Your task to perform on an android device: empty trash in the gmail app Image 0: 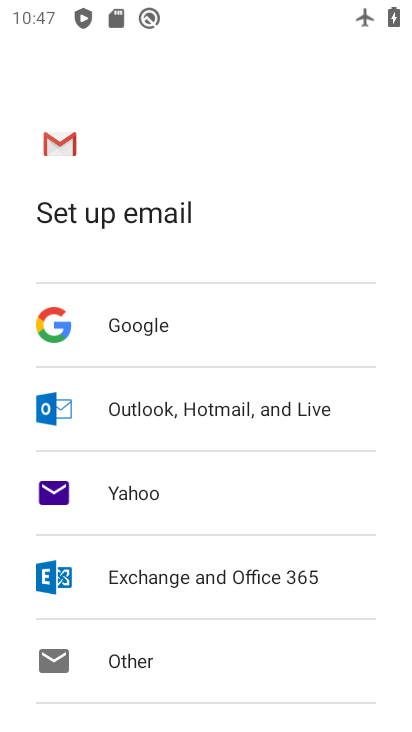
Step 0: press home button
Your task to perform on an android device: empty trash in the gmail app Image 1: 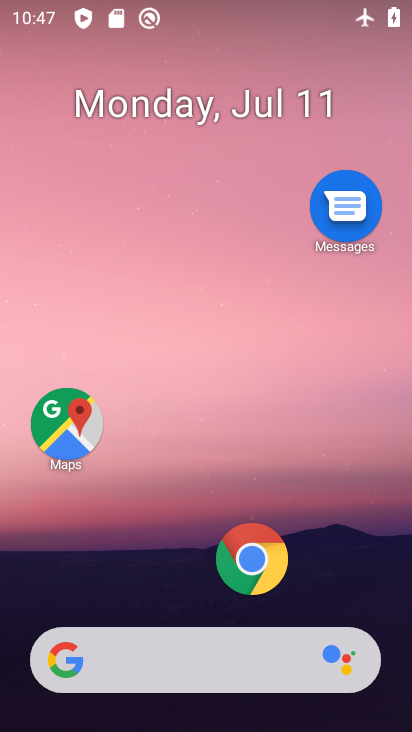
Step 1: drag from (372, 589) to (354, 247)
Your task to perform on an android device: empty trash in the gmail app Image 2: 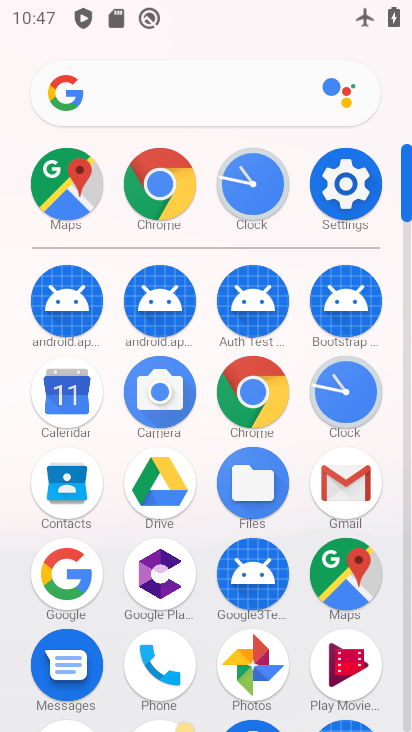
Step 2: click (359, 476)
Your task to perform on an android device: empty trash in the gmail app Image 3: 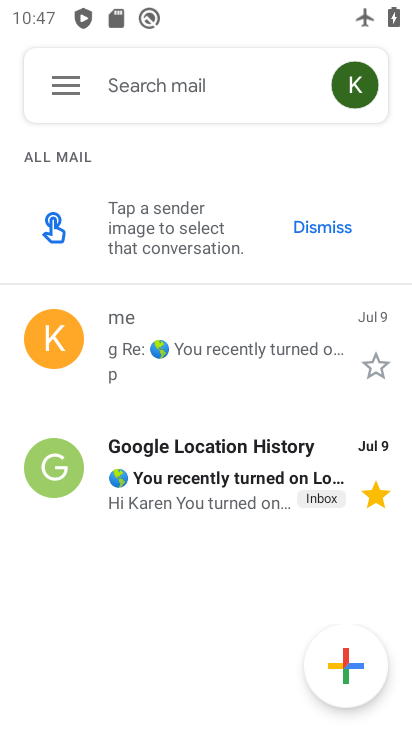
Step 3: click (68, 88)
Your task to perform on an android device: empty trash in the gmail app Image 4: 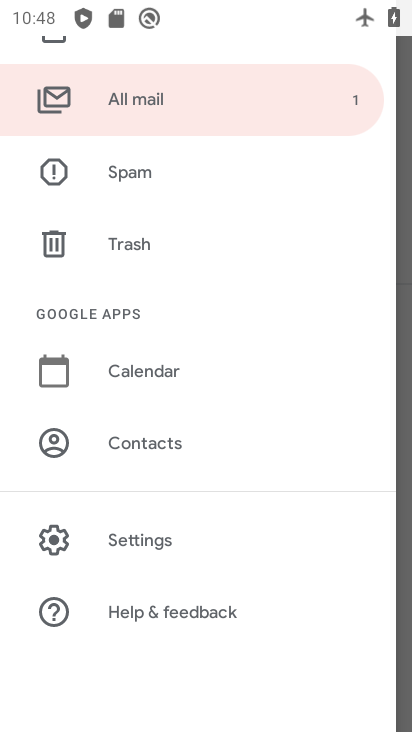
Step 4: click (141, 249)
Your task to perform on an android device: empty trash in the gmail app Image 5: 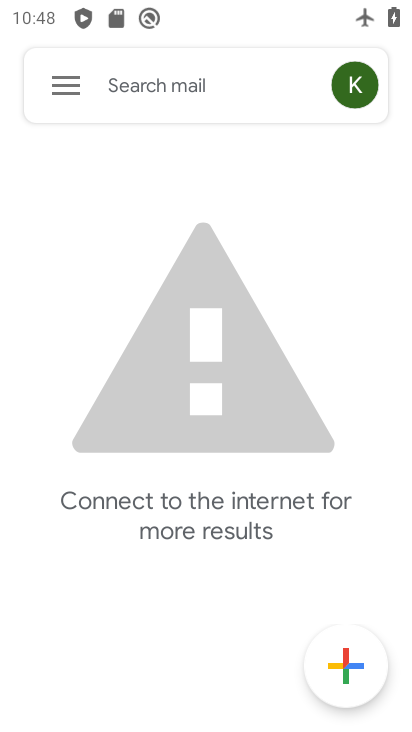
Step 5: task complete